Your task to perform on an android device: Search for seafood restaurants on Google Maps Image 0: 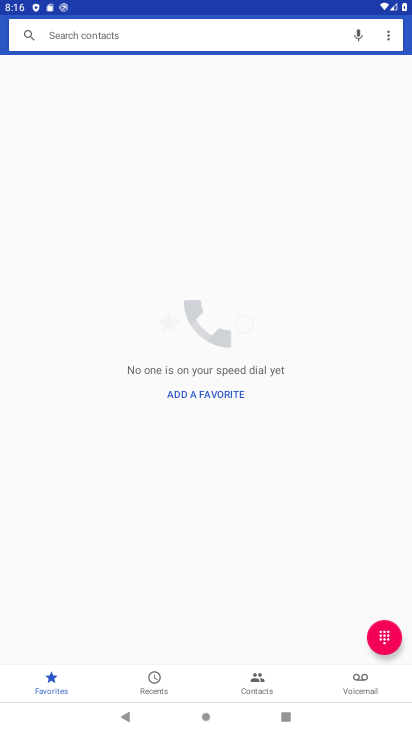
Step 0: press home button
Your task to perform on an android device: Search for seafood restaurants on Google Maps Image 1: 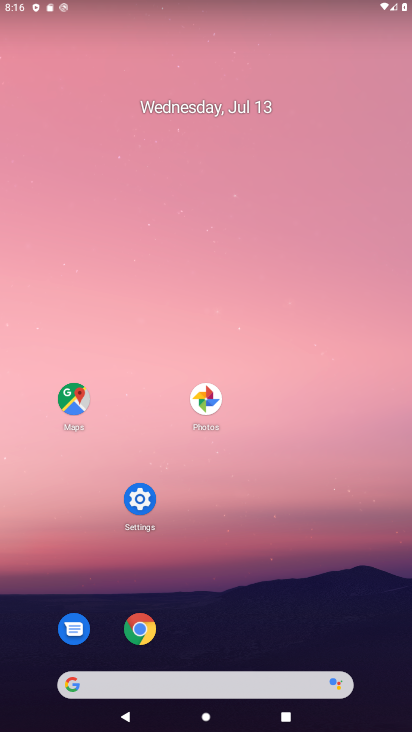
Step 1: click (72, 397)
Your task to perform on an android device: Search for seafood restaurants on Google Maps Image 2: 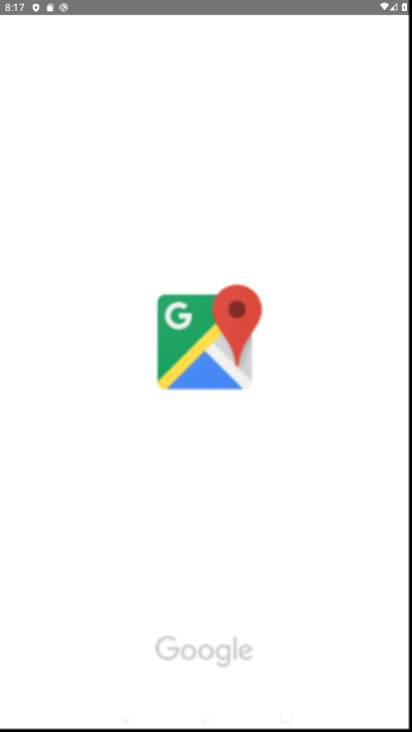
Step 2: click (88, 344)
Your task to perform on an android device: Search for seafood restaurants on Google Maps Image 3: 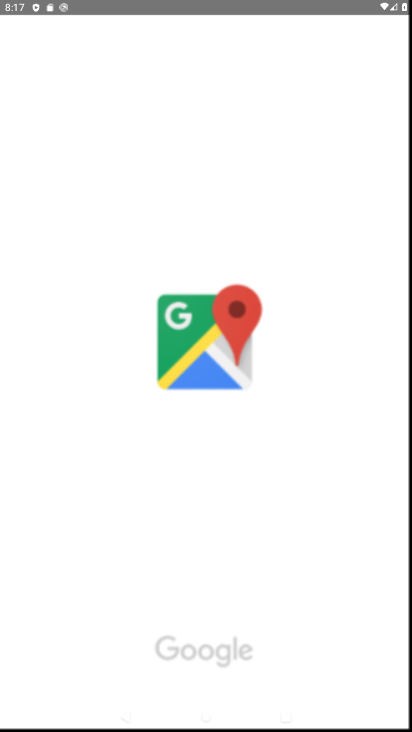
Step 3: task complete